Your task to perform on an android device: turn off wifi Image 0: 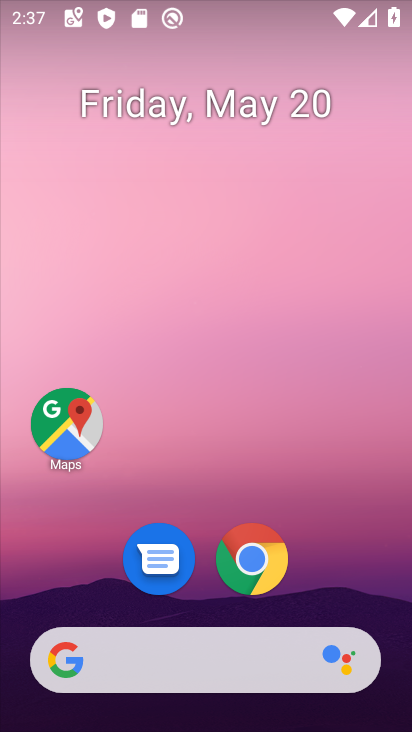
Step 0: drag from (224, 445) to (250, 23)
Your task to perform on an android device: turn off wifi Image 1: 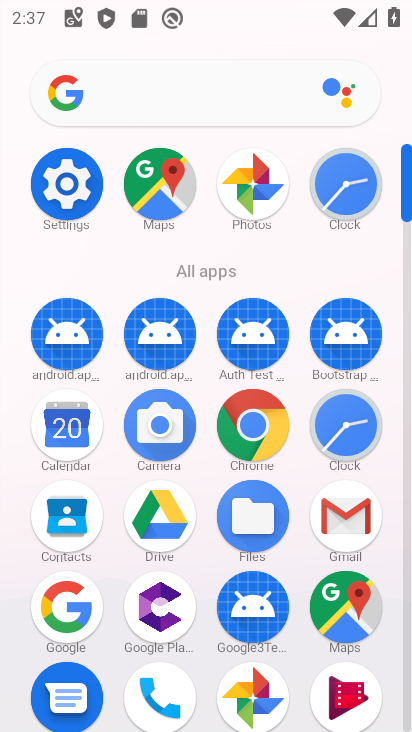
Step 1: click (70, 187)
Your task to perform on an android device: turn off wifi Image 2: 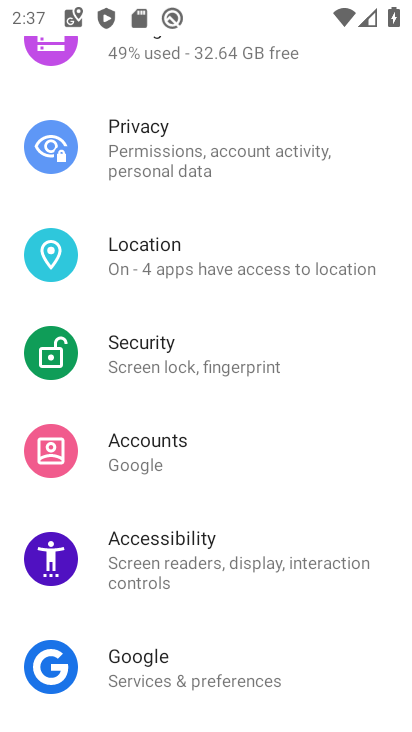
Step 2: drag from (238, 196) to (240, 501)
Your task to perform on an android device: turn off wifi Image 3: 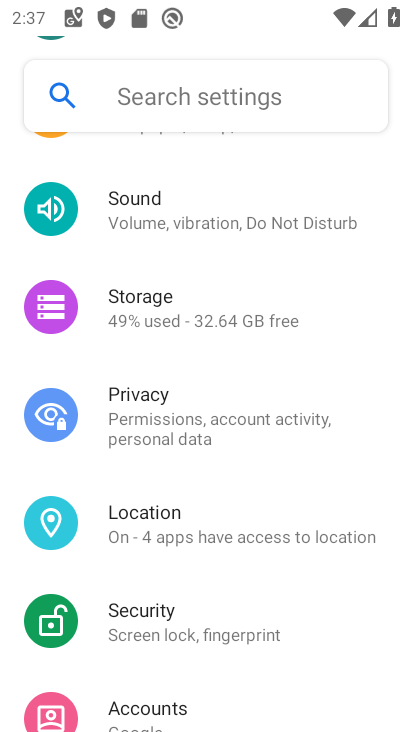
Step 3: drag from (210, 364) to (200, 640)
Your task to perform on an android device: turn off wifi Image 4: 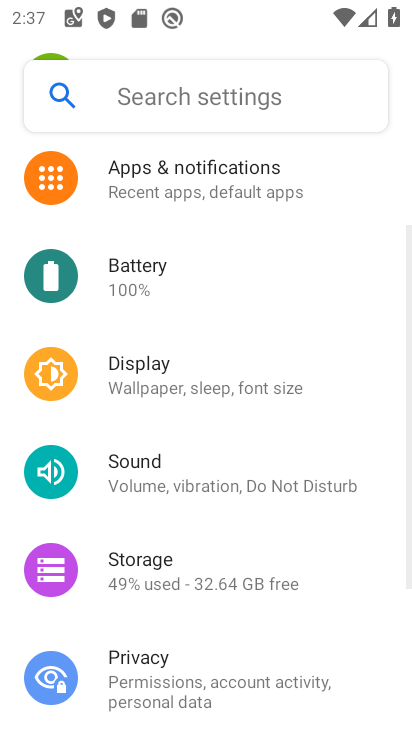
Step 4: drag from (220, 470) to (220, 630)
Your task to perform on an android device: turn off wifi Image 5: 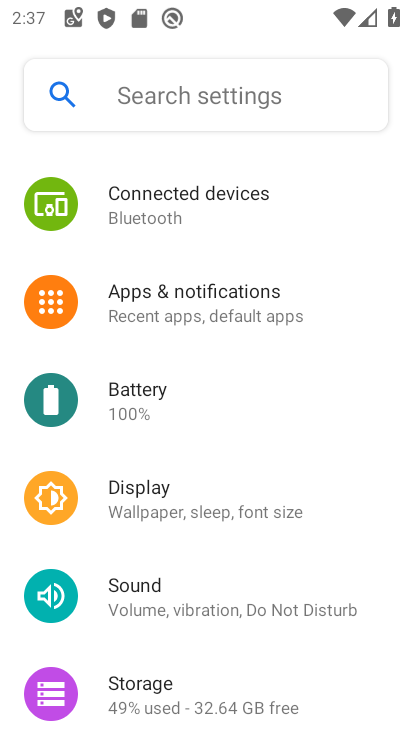
Step 5: drag from (236, 250) to (215, 590)
Your task to perform on an android device: turn off wifi Image 6: 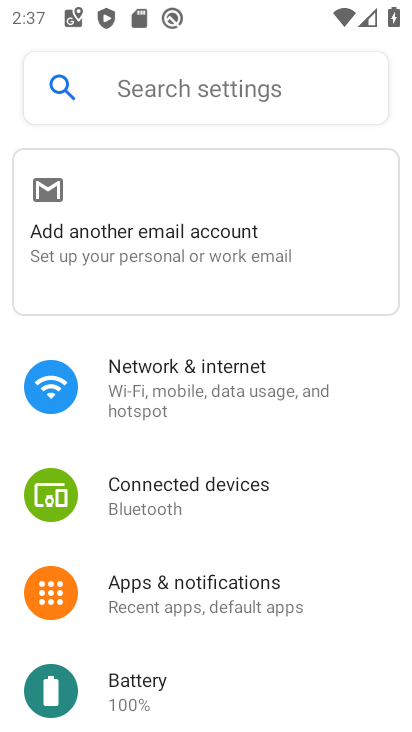
Step 6: click (211, 380)
Your task to perform on an android device: turn off wifi Image 7: 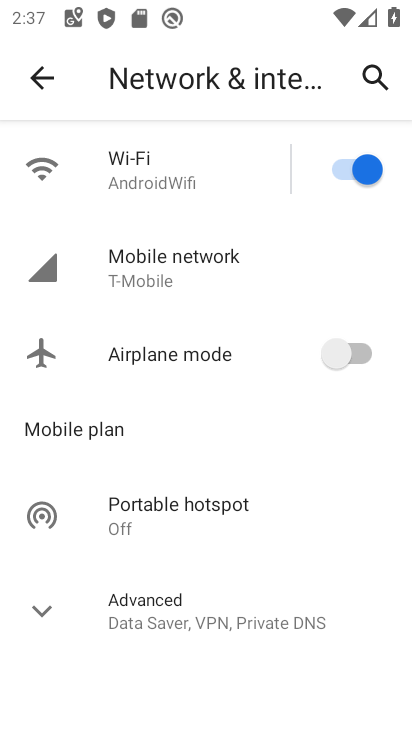
Step 7: click (349, 165)
Your task to perform on an android device: turn off wifi Image 8: 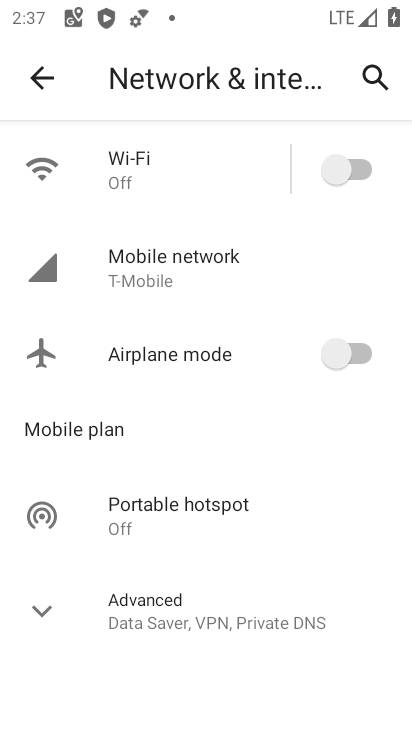
Step 8: task complete